Your task to perform on an android device: make emails show in primary in the gmail app Image 0: 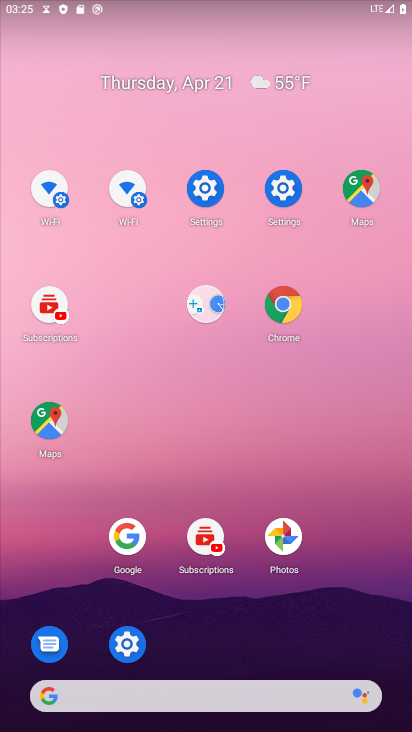
Step 0: drag from (274, 533) to (148, 90)
Your task to perform on an android device: make emails show in primary in the gmail app Image 1: 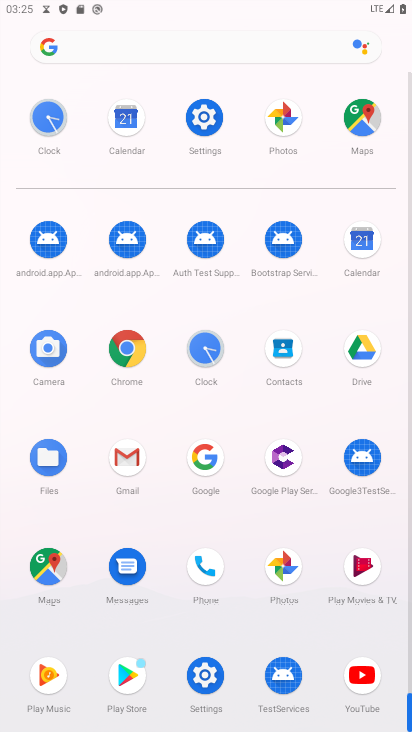
Step 1: click (129, 456)
Your task to perform on an android device: make emails show in primary in the gmail app Image 2: 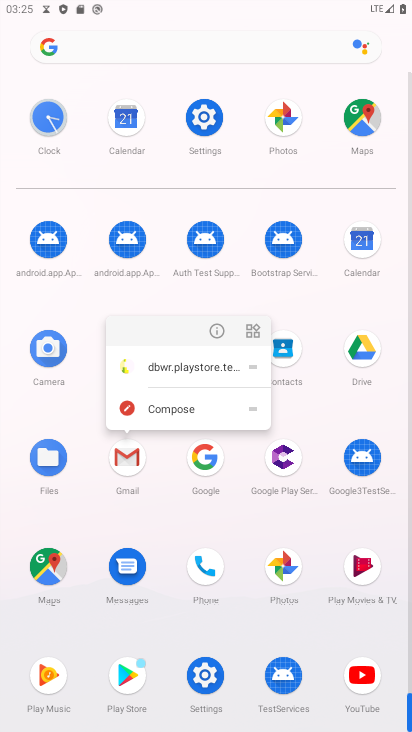
Step 2: click (121, 455)
Your task to perform on an android device: make emails show in primary in the gmail app Image 3: 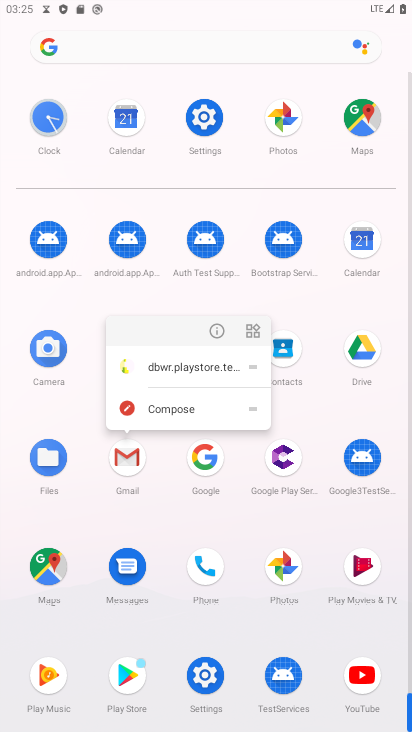
Step 3: drag from (120, 443) to (136, 488)
Your task to perform on an android device: make emails show in primary in the gmail app Image 4: 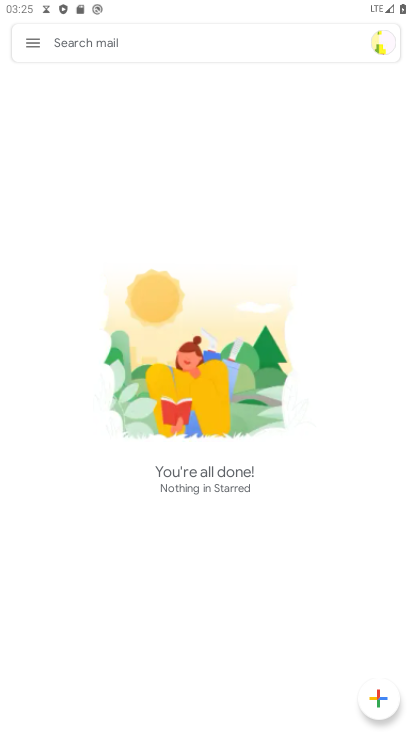
Step 4: drag from (34, 37) to (82, 459)
Your task to perform on an android device: make emails show in primary in the gmail app Image 5: 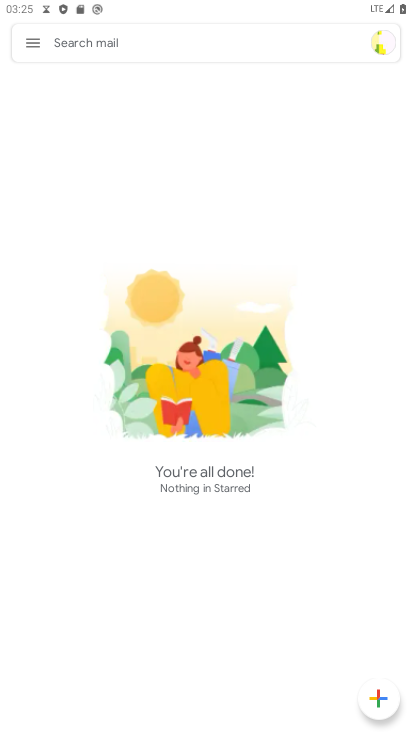
Step 5: click (31, 39)
Your task to perform on an android device: make emails show in primary in the gmail app Image 6: 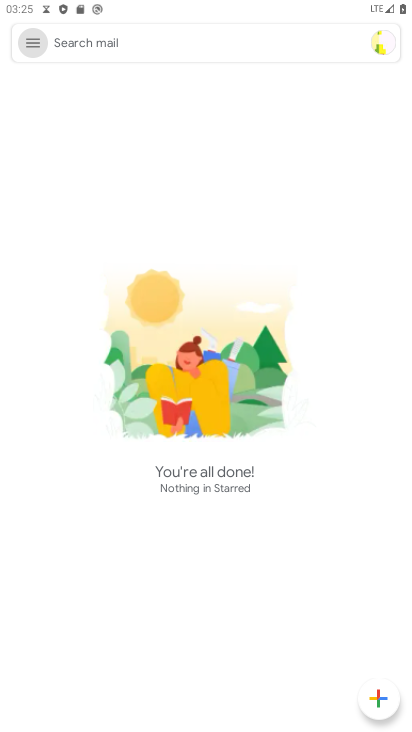
Step 6: click (31, 39)
Your task to perform on an android device: make emails show in primary in the gmail app Image 7: 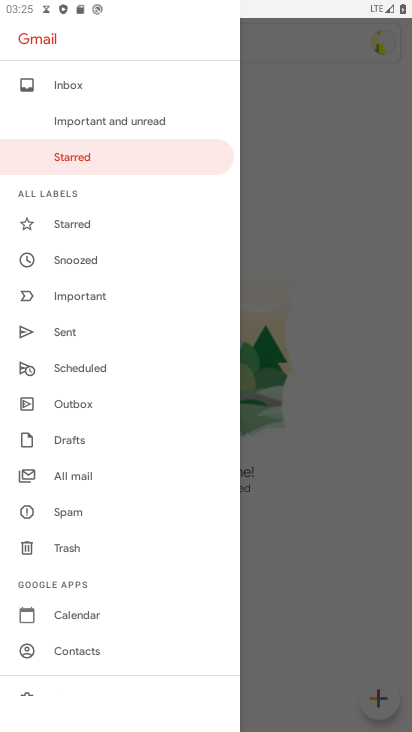
Step 7: click (75, 472)
Your task to perform on an android device: make emails show in primary in the gmail app Image 8: 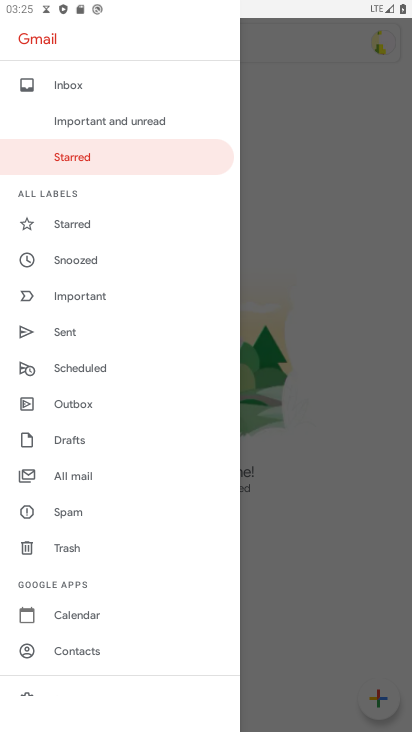
Step 8: click (80, 463)
Your task to perform on an android device: make emails show in primary in the gmail app Image 9: 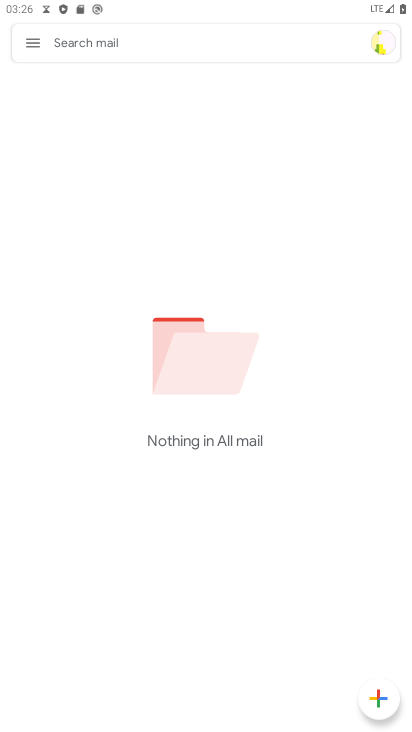
Step 9: task complete